Your task to perform on an android device: see creations saved in the google photos Image 0: 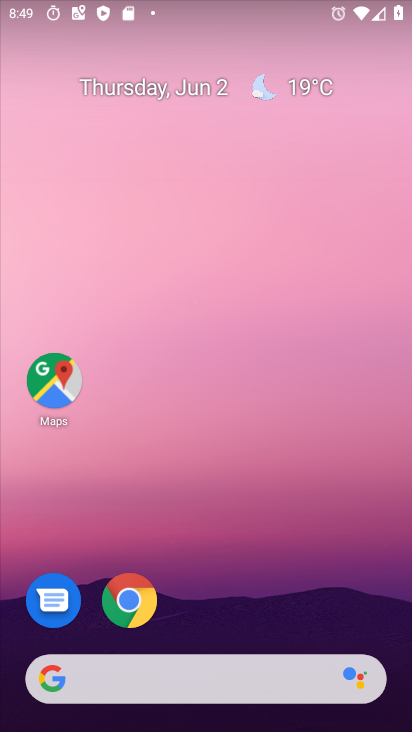
Step 0: drag from (370, 614) to (377, 255)
Your task to perform on an android device: see creations saved in the google photos Image 1: 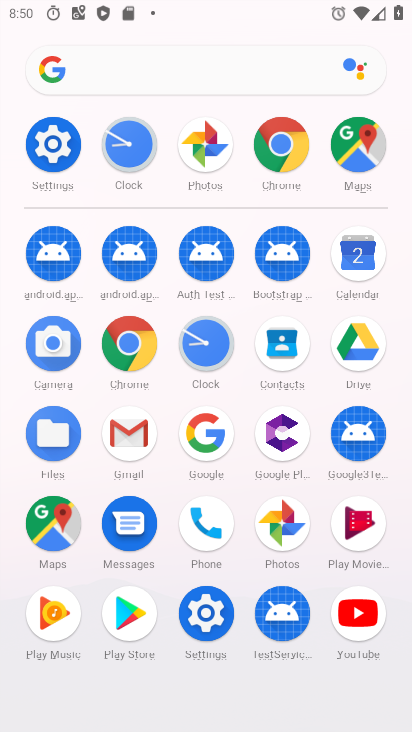
Step 1: click (292, 532)
Your task to perform on an android device: see creations saved in the google photos Image 2: 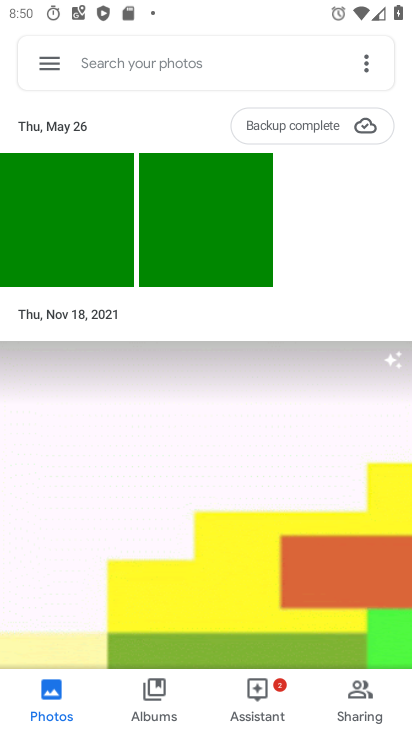
Step 2: click (207, 61)
Your task to perform on an android device: see creations saved in the google photos Image 3: 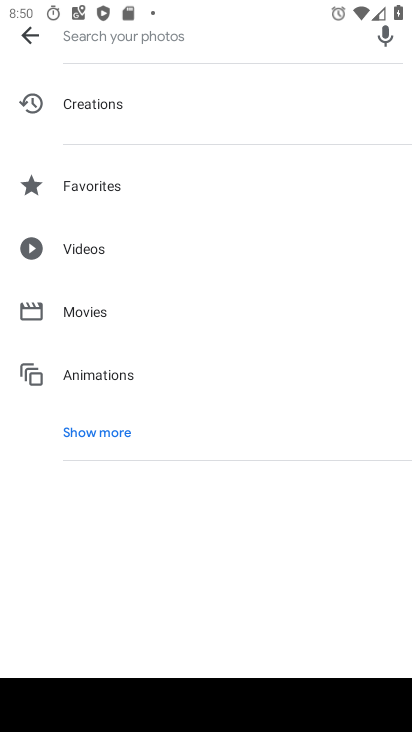
Step 3: click (122, 450)
Your task to perform on an android device: see creations saved in the google photos Image 4: 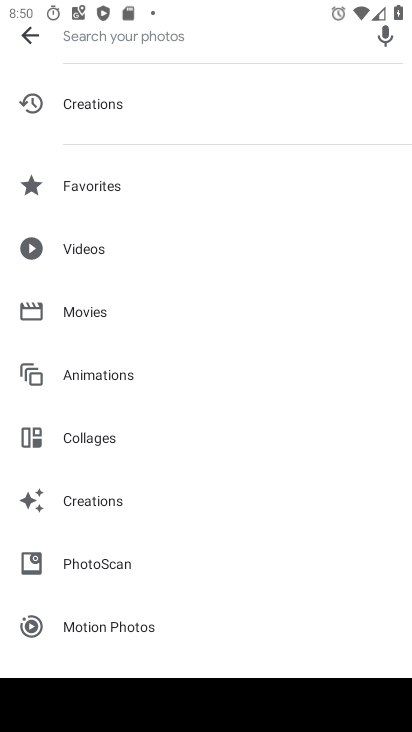
Step 4: drag from (233, 470) to (237, 386)
Your task to perform on an android device: see creations saved in the google photos Image 5: 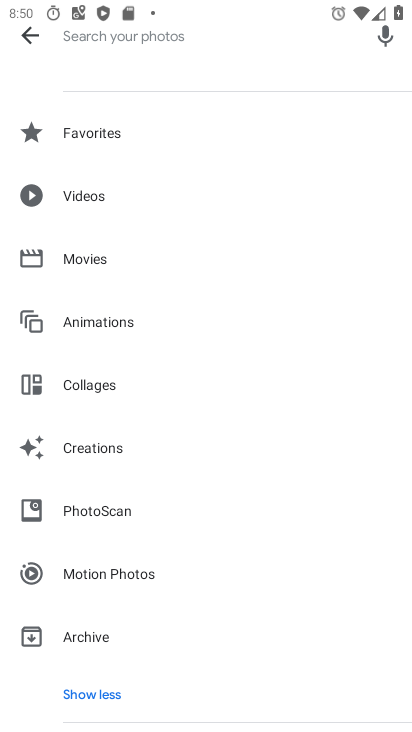
Step 5: drag from (240, 480) to (252, 368)
Your task to perform on an android device: see creations saved in the google photos Image 6: 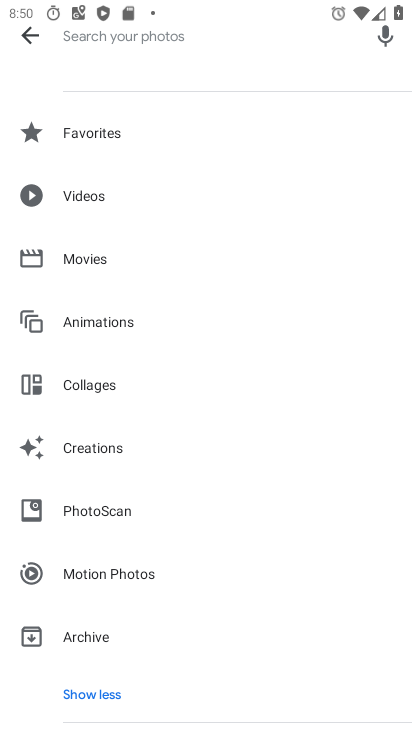
Step 6: click (173, 456)
Your task to perform on an android device: see creations saved in the google photos Image 7: 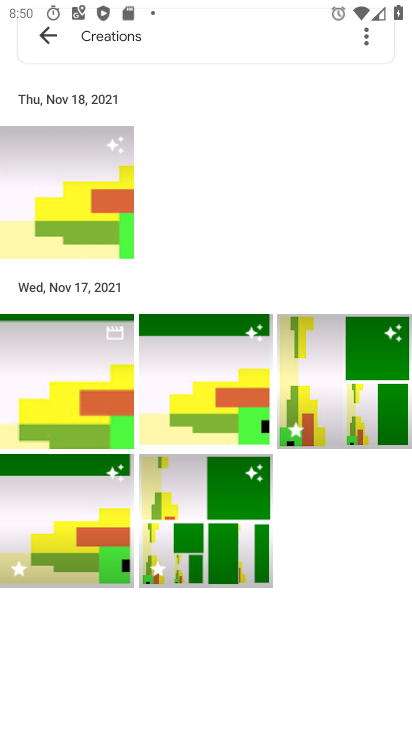
Step 7: task complete